Your task to perform on an android device: Open display settings Image 0: 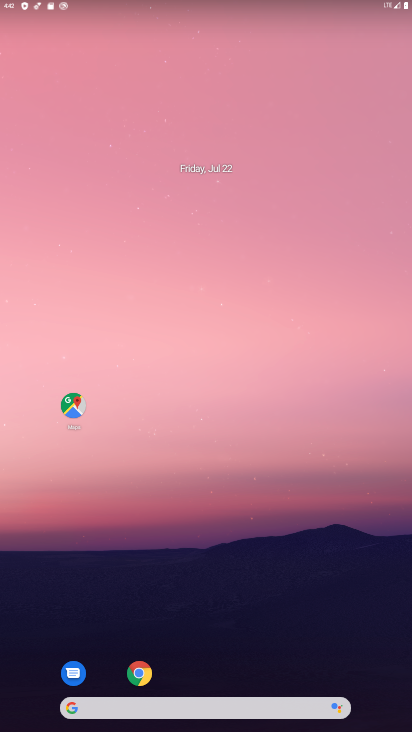
Step 0: press home button
Your task to perform on an android device: Open display settings Image 1: 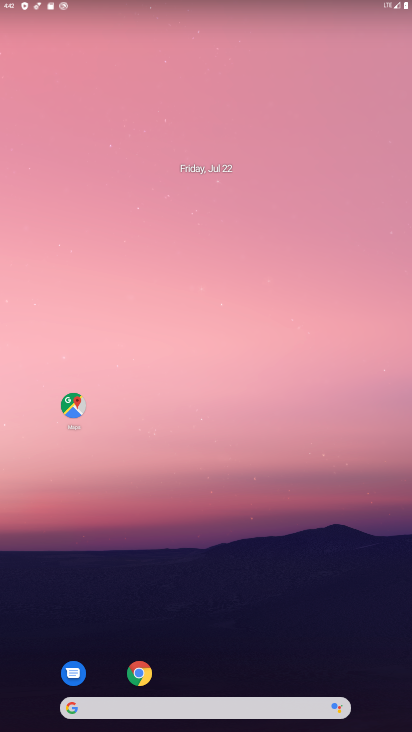
Step 1: click (309, 103)
Your task to perform on an android device: Open display settings Image 2: 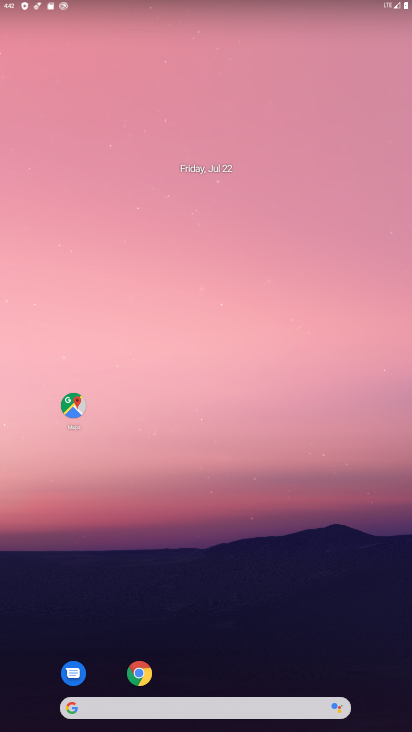
Step 2: drag from (198, 617) to (262, 25)
Your task to perform on an android device: Open display settings Image 3: 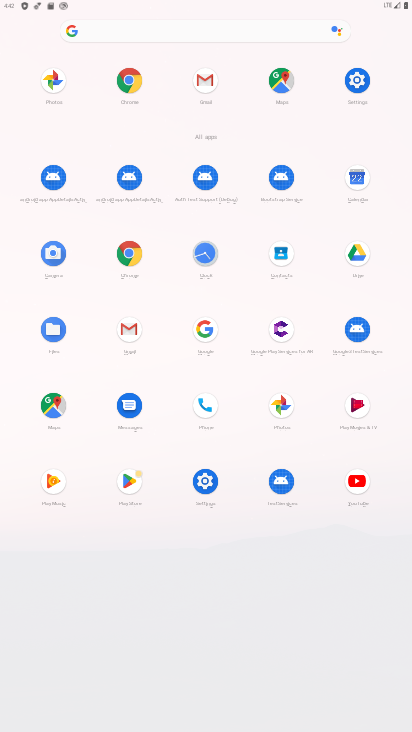
Step 3: click (363, 77)
Your task to perform on an android device: Open display settings Image 4: 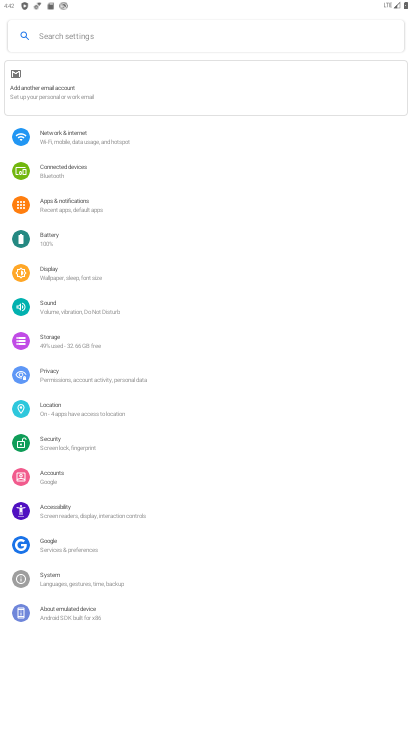
Step 4: click (49, 281)
Your task to perform on an android device: Open display settings Image 5: 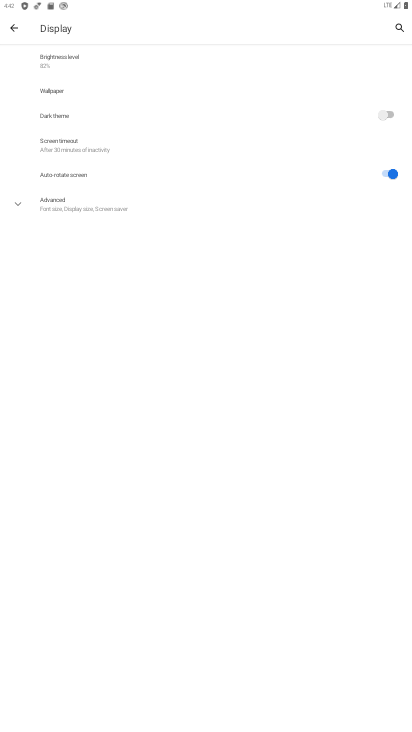
Step 5: task complete